Your task to perform on an android device: empty trash in the gmail app Image 0: 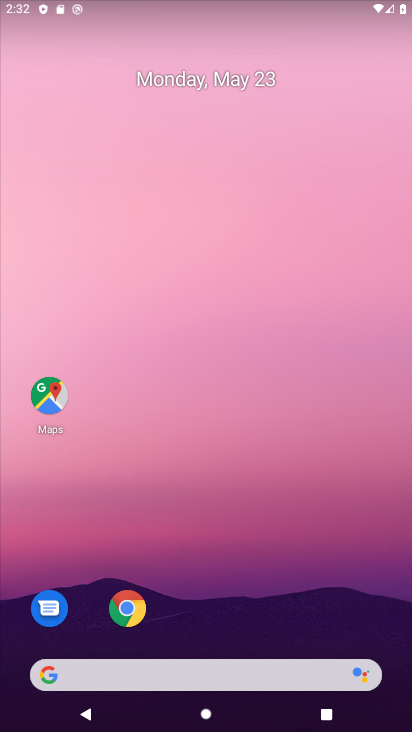
Step 0: drag from (244, 592) to (224, 328)
Your task to perform on an android device: empty trash in the gmail app Image 1: 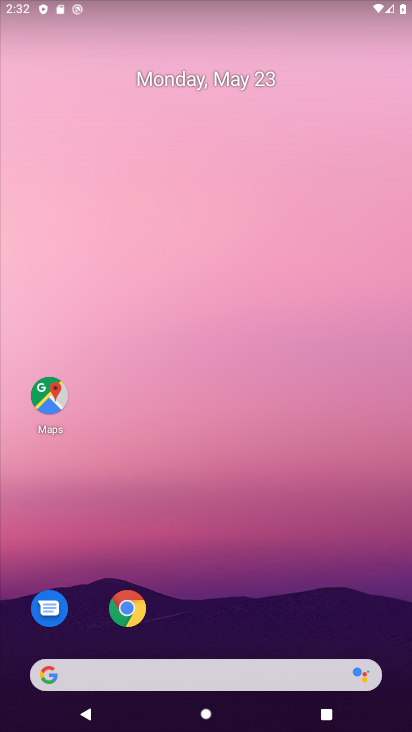
Step 1: drag from (201, 600) to (239, 187)
Your task to perform on an android device: empty trash in the gmail app Image 2: 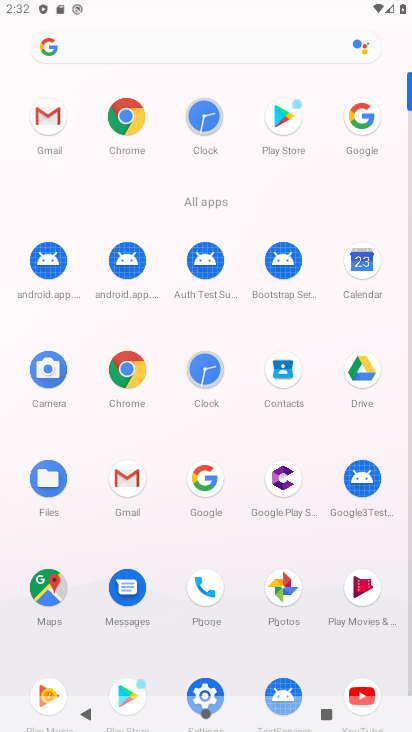
Step 2: click (132, 484)
Your task to perform on an android device: empty trash in the gmail app Image 3: 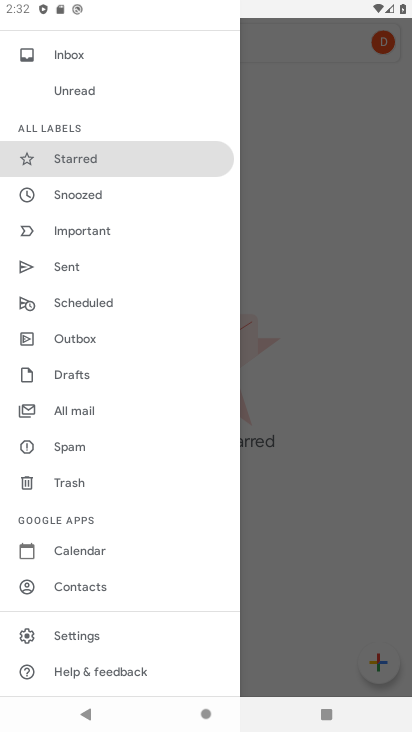
Step 3: click (91, 477)
Your task to perform on an android device: empty trash in the gmail app Image 4: 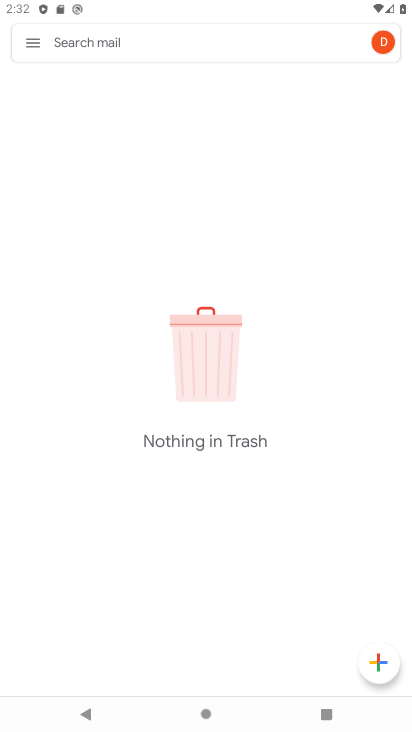
Step 4: task complete